Your task to perform on an android device: Open Youtube and go to the subscriptions tab Image 0: 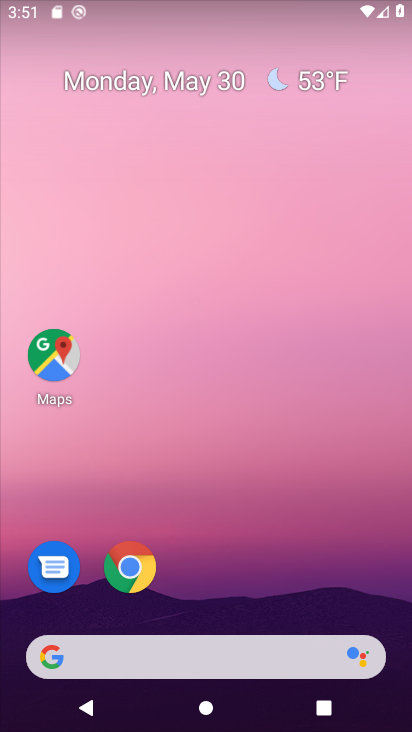
Step 0: drag from (309, 670) to (308, 145)
Your task to perform on an android device: Open Youtube and go to the subscriptions tab Image 1: 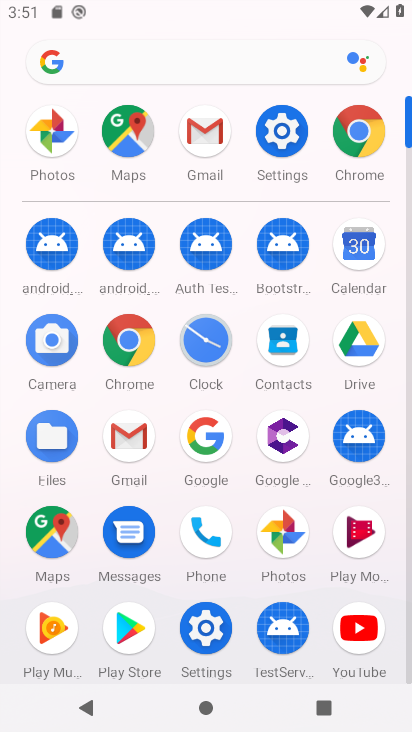
Step 1: click (280, 143)
Your task to perform on an android device: Open Youtube and go to the subscriptions tab Image 2: 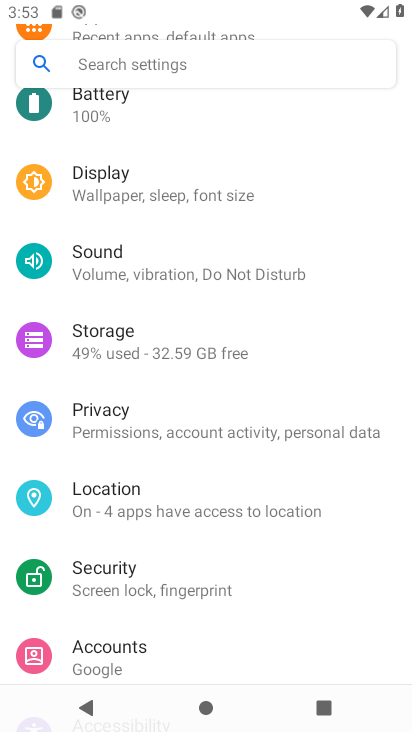
Step 2: press home button
Your task to perform on an android device: Open Youtube and go to the subscriptions tab Image 3: 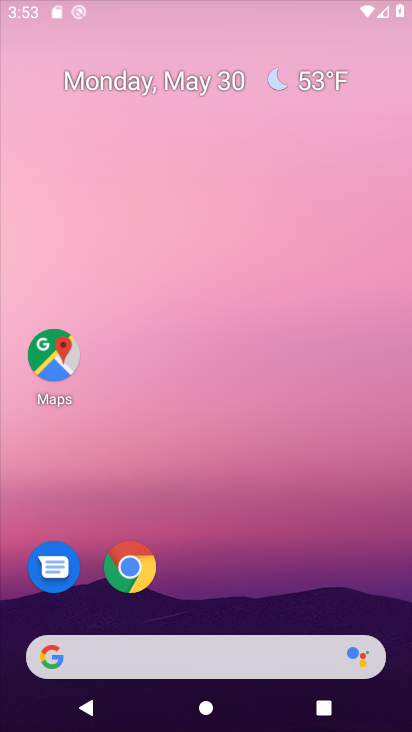
Step 3: drag from (177, 622) to (238, 5)
Your task to perform on an android device: Open Youtube and go to the subscriptions tab Image 4: 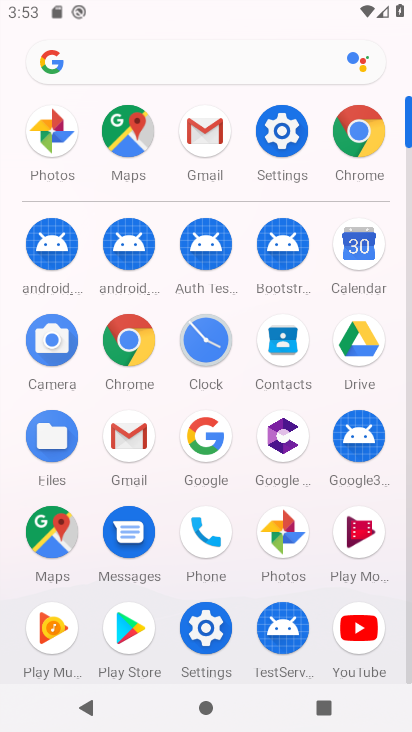
Step 4: click (353, 636)
Your task to perform on an android device: Open Youtube and go to the subscriptions tab Image 5: 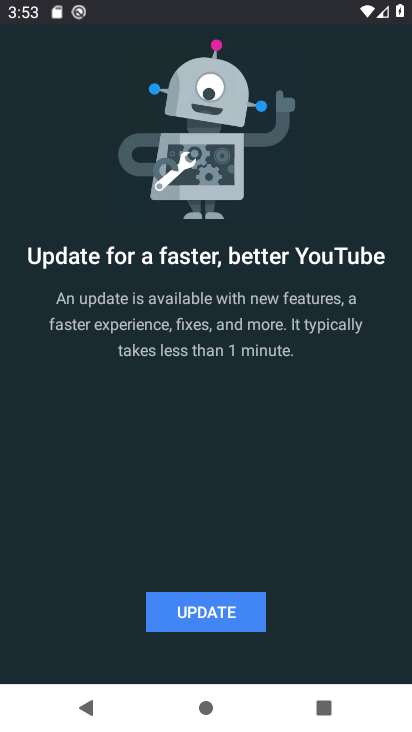
Step 5: click (212, 613)
Your task to perform on an android device: Open Youtube and go to the subscriptions tab Image 6: 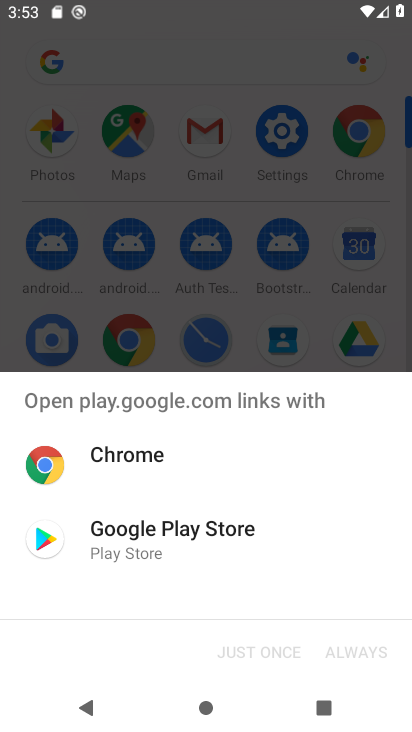
Step 6: click (200, 542)
Your task to perform on an android device: Open Youtube and go to the subscriptions tab Image 7: 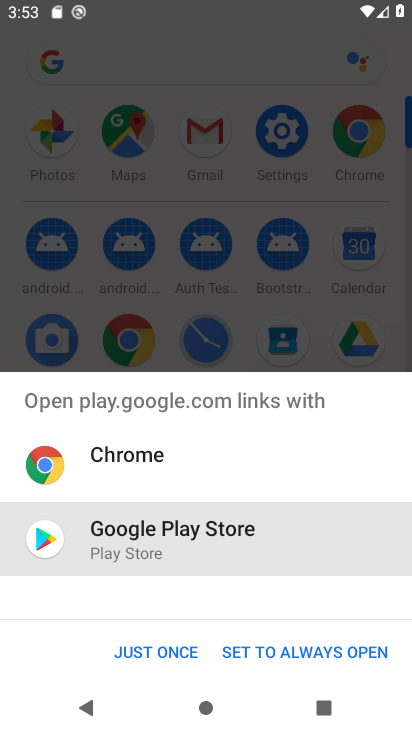
Step 7: click (137, 655)
Your task to perform on an android device: Open Youtube and go to the subscriptions tab Image 8: 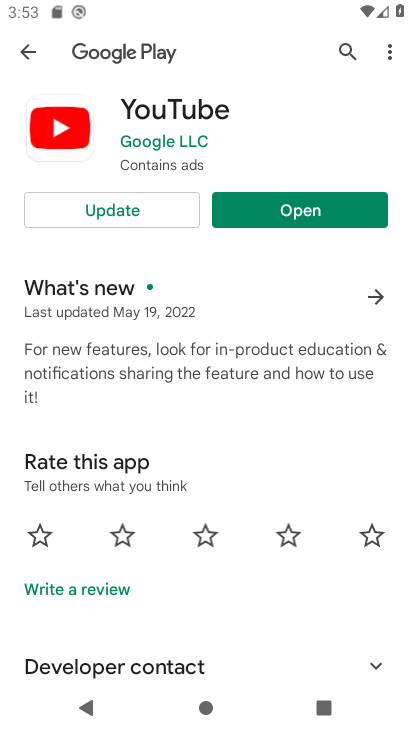
Step 8: click (166, 203)
Your task to perform on an android device: Open Youtube and go to the subscriptions tab Image 9: 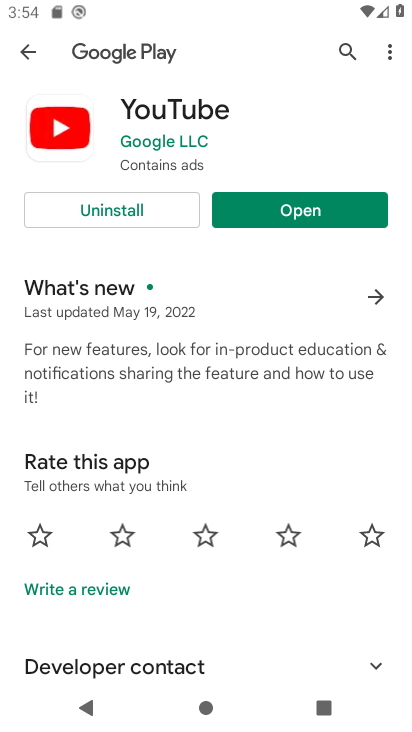
Step 9: click (353, 211)
Your task to perform on an android device: Open Youtube and go to the subscriptions tab Image 10: 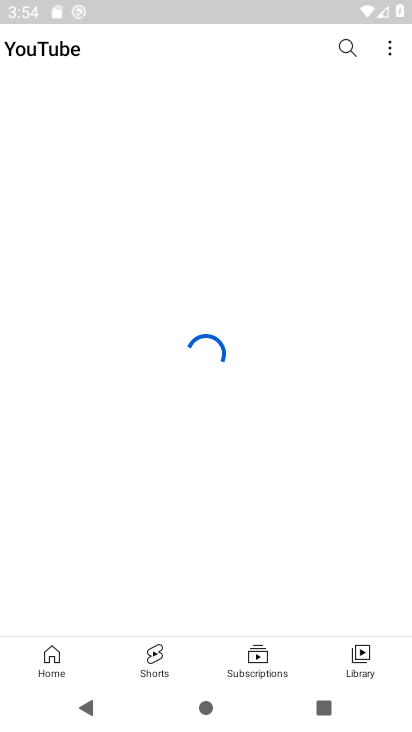
Step 10: drag from (380, 47) to (335, 448)
Your task to perform on an android device: Open Youtube and go to the subscriptions tab Image 11: 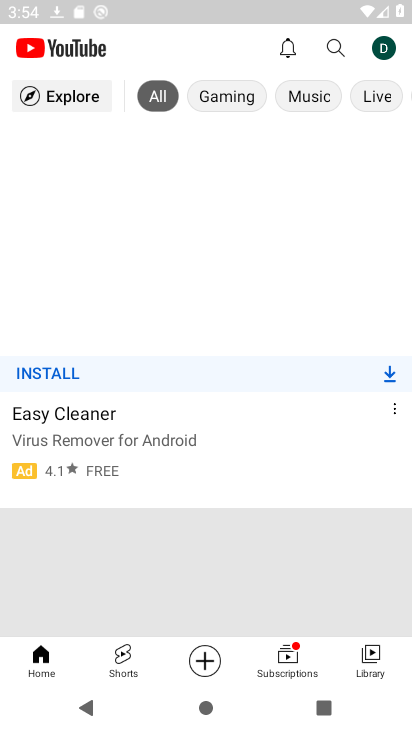
Step 11: click (290, 659)
Your task to perform on an android device: Open Youtube and go to the subscriptions tab Image 12: 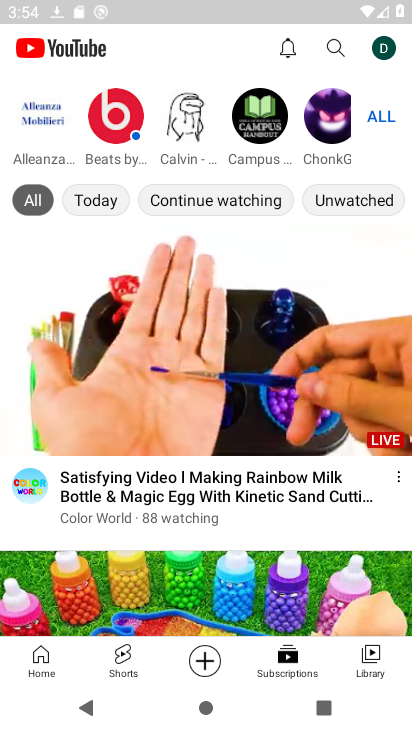
Step 12: task complete